Your task to perform on an android device: Go to battery settings Image 0: 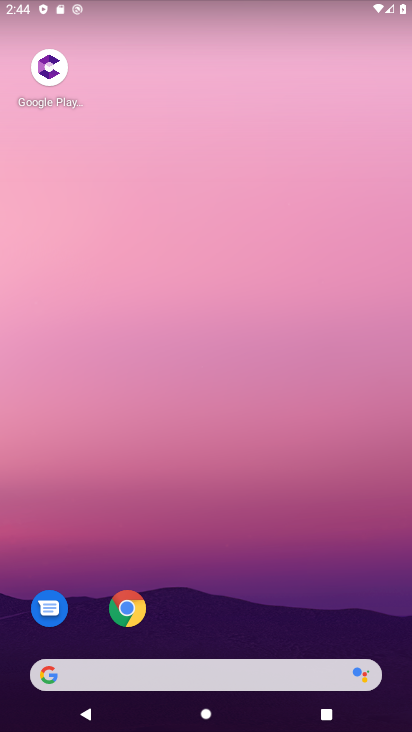
Step 0: drag from (210, 591) to (343, 141)
Your task to perform on an android device: Go to battery settings Image 1: 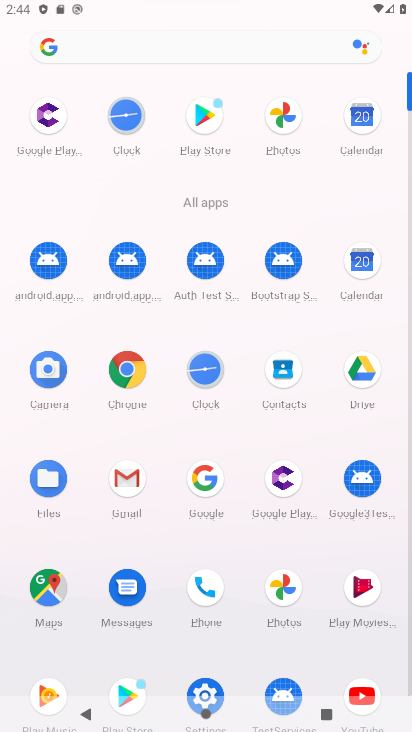
Step 1: click (209, 690)
Your task to perform on an android device: Go to battery settings Image 2: 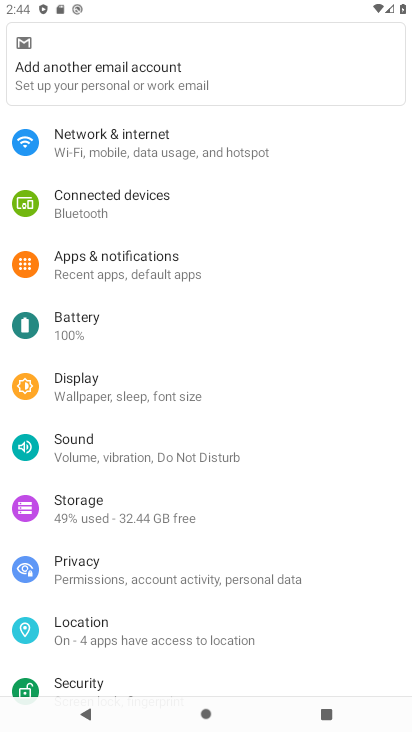
Step 2: click (91, 340)
Your task to perform on an android device: Go to battery settings Image 3: 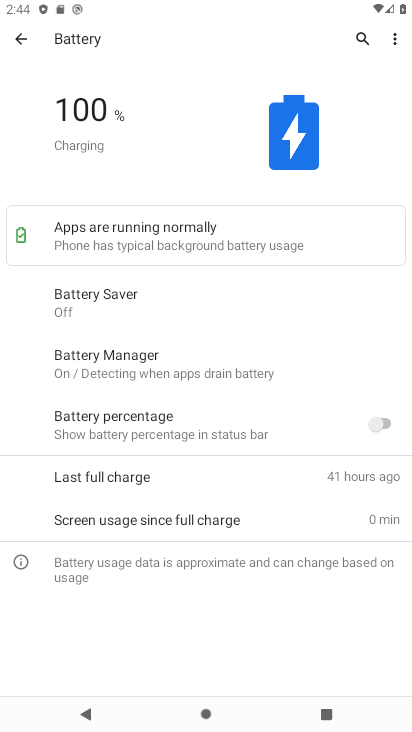
Step 3: task complete